Your task to perform on an android device: change the upload size in google photos Image 0: 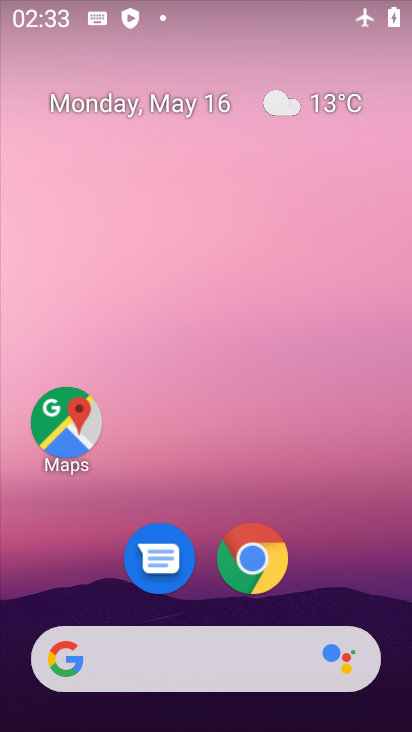
Step 0: drag from (210, 621) to (103, 41)
Your task to perform on an android device: change the upload size in google photos Image 1: 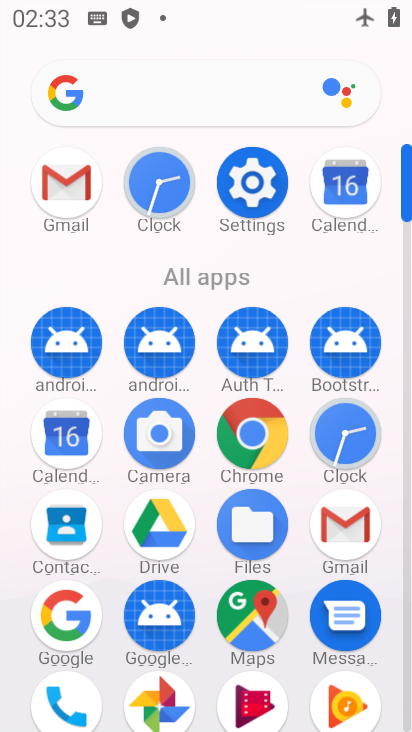
Step 1: click (167, 690)
Your task to perform on an android device: change the upload size in google photos Image 2: 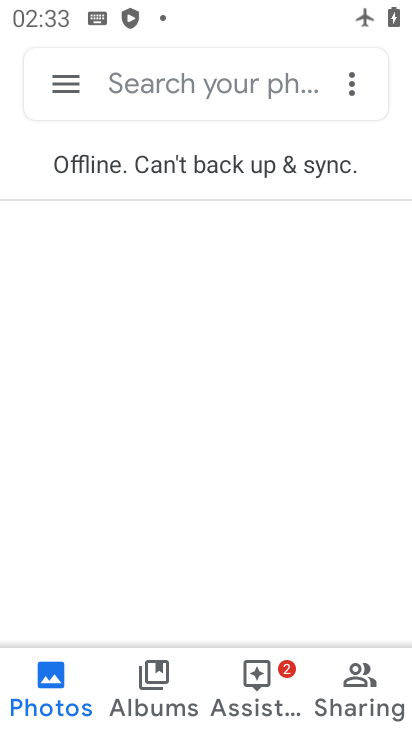
Step 2: click (38, 90)
Your task to perform on an android device: change the upload size in google photos Image 3: 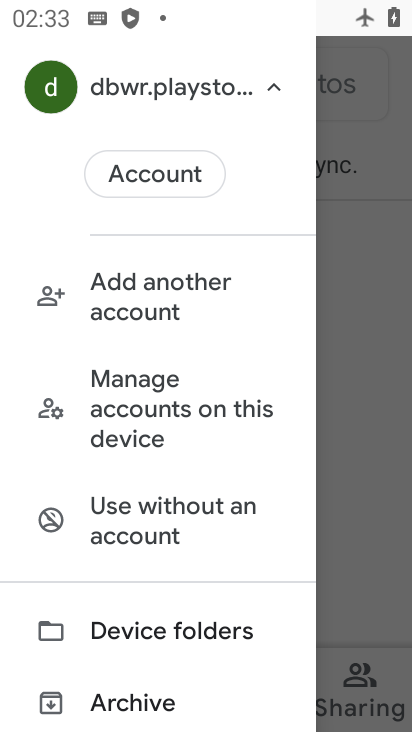
Step 3: drag from (164, 617) to (103, 155)
Your task to perform on an android device: change the upload size in google photos Image 4: 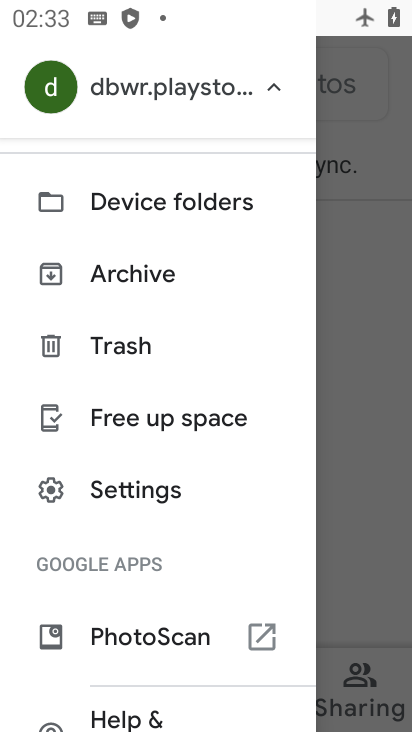
Step 4: click (135, 501)
Your task to perform on an android device: change the upload size in google photos Image 5: 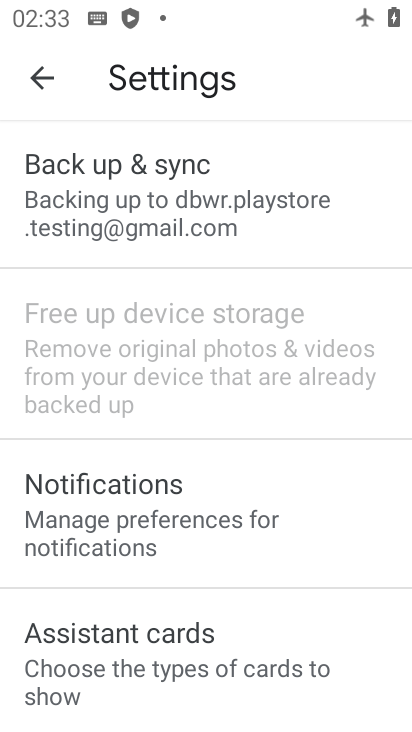
Step 5: drag from (173, 621) to (98, 132)
Your task to perform on an android device: change the upload size in google photos Image 6: 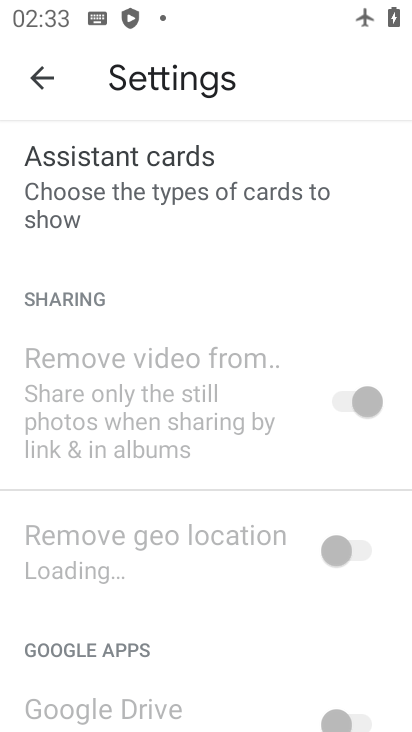
Step 6: drag from (181, 452) to (79, 9)
Your task to perform on an android device: change the upload size in google photos Image 7: 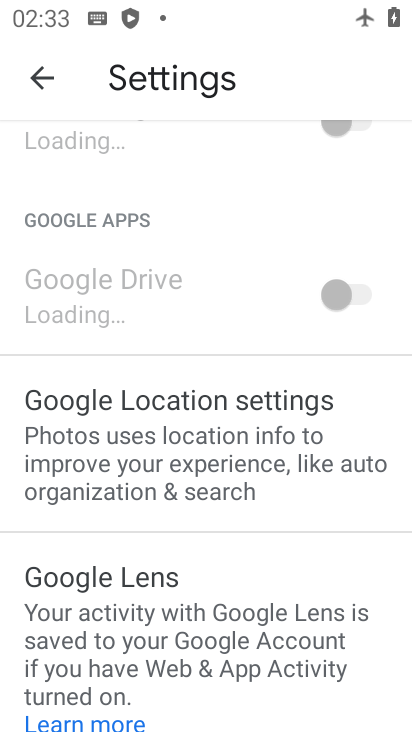
Step 7: drag from (203, 572) to (109, 54)
Your task to perform on an android device: change the upload size in google photos Image 8: 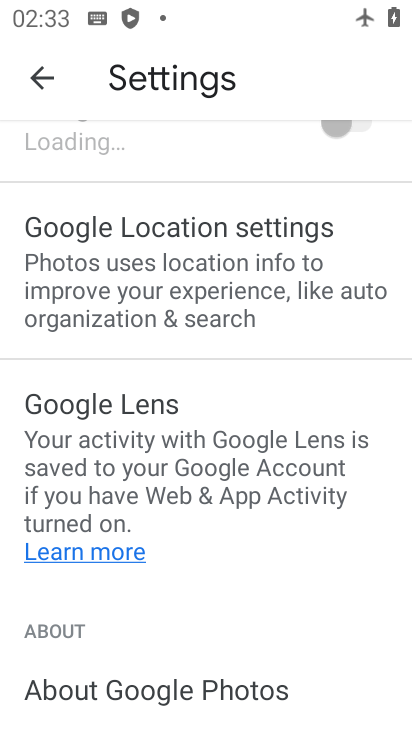
Step 8: drag from (144, 273) to (203, 731)
Your task to perform on an android device: change the upload size in google photos Image 9: 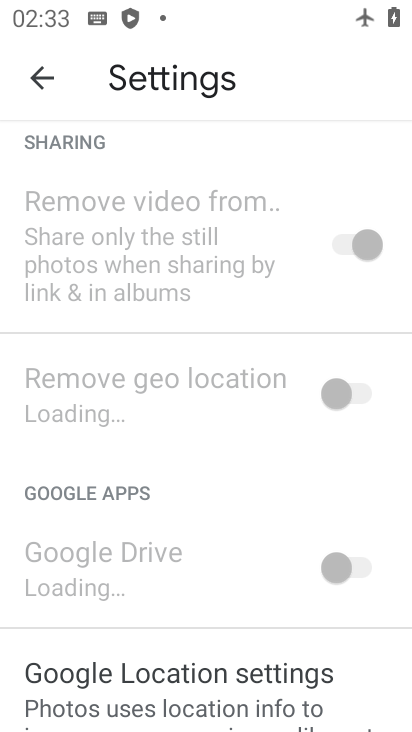
Step 9: click (33, 87)
Your task to perform on an android device: change the upload size in google photos Image 10: 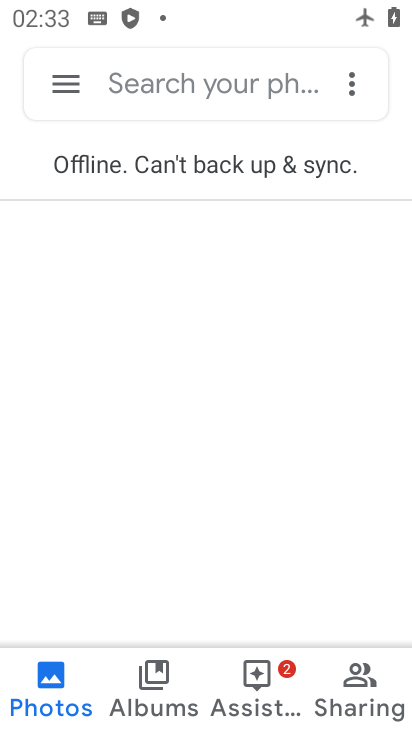
Step 10: click (44, 85)
Your task to perform on an android device: change the upload size in google photos Image 11: 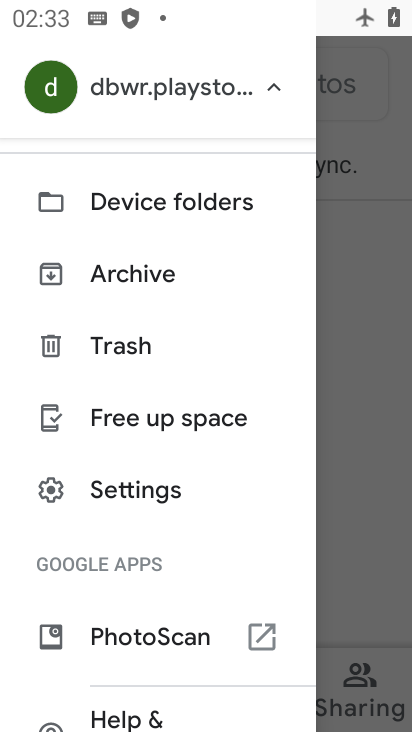
Step 11: click (127, 500)
Your task to perform on an android device: change the upload size in google photos Image 12: 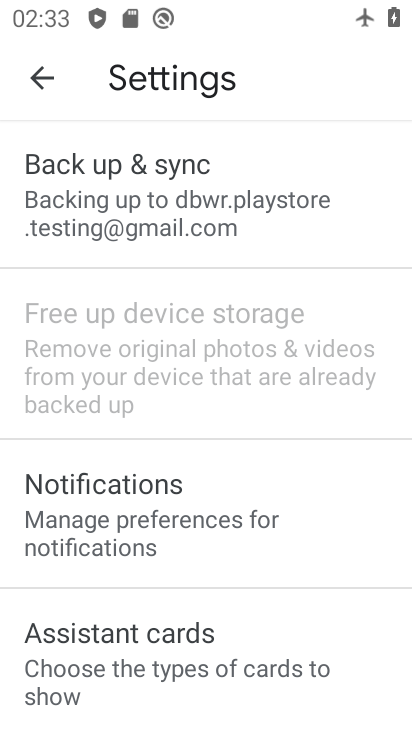
Step 12: drag from (155, 553) to (61, 161)
Your task to perform on an android device: change the upload size in google photos Image 13: 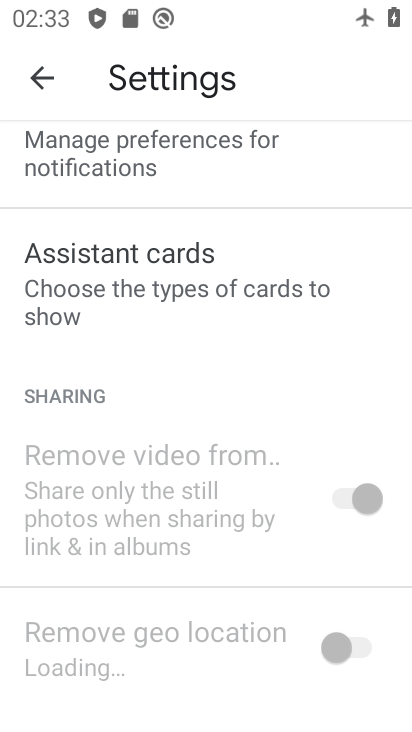
Step 13: drag from (69, 212) to (72, 731)
Your task to perform on an android device: change the upload size in google photos Image 14: 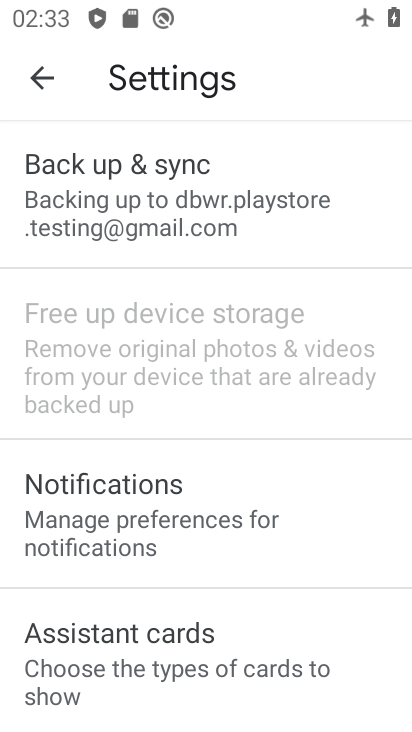
Step 14: click (97, 240)
Your task to perform on an android device: change the upload size in google photos Image 15: 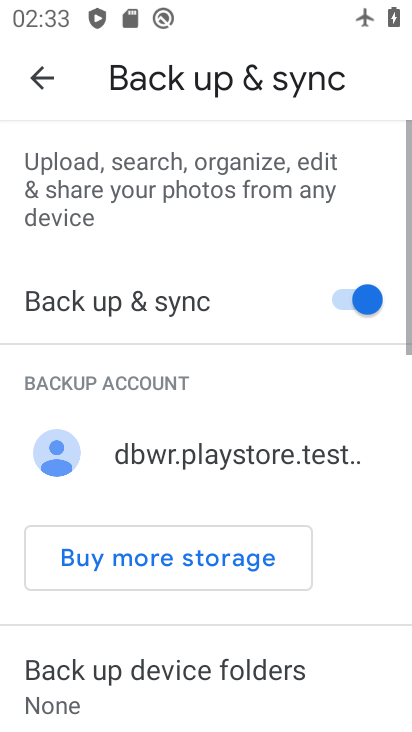
Step 15: drag from (197, 569) to (122, 205)
Your task to perform on an android device: change the upload size in google photos Image 16: 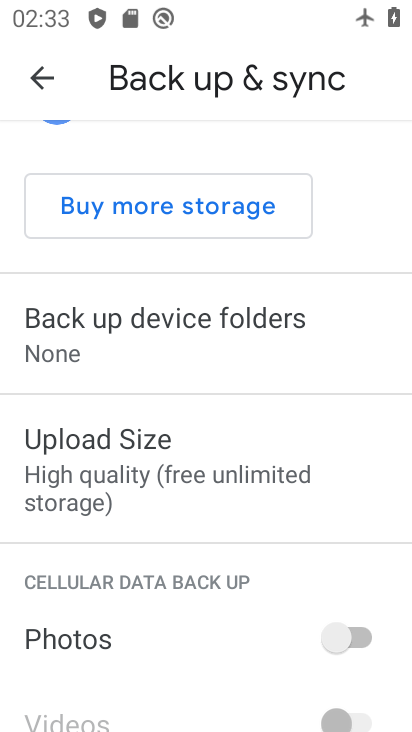
Step 16: click (193, 467)
Your task to perform on an android device: change the upload size in google photos Image 17: 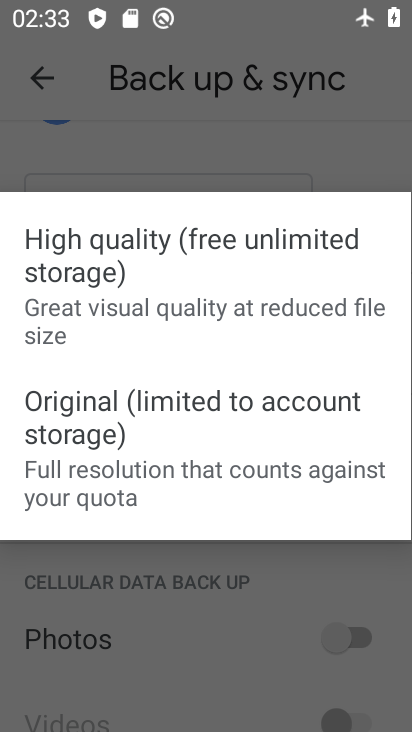
Step 17: click (187, 459)
Your task to perform on an android device: change the upload size in google photos Image 18: 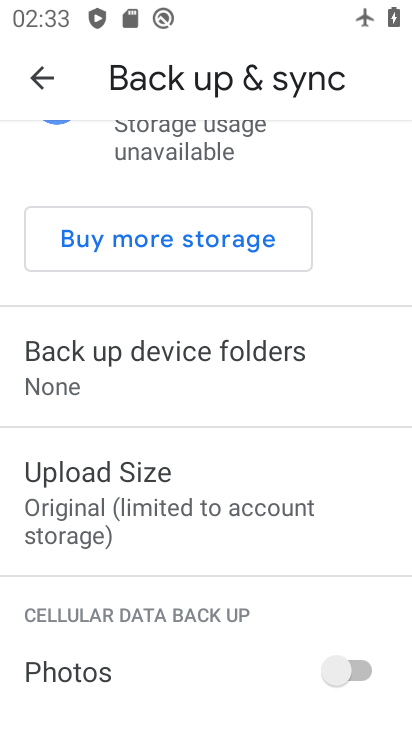
Step 18: task complete